Your task to perform on an android device: turn off priority inbox in the gmail app Image 0: 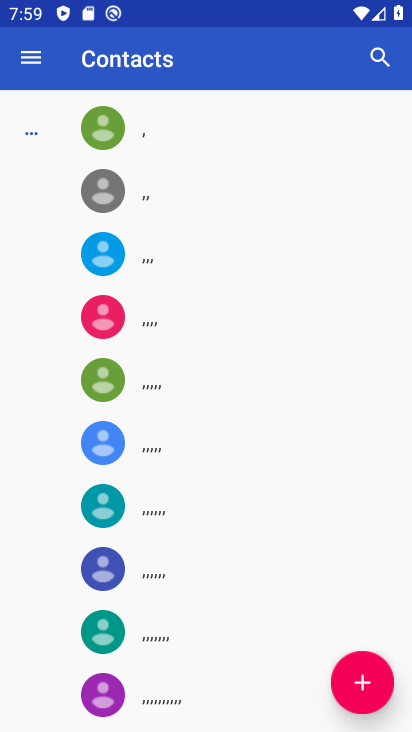
Step 0: press home button
Your task to perform on an android device: turn off priority inbox in the gmail app Image 1: 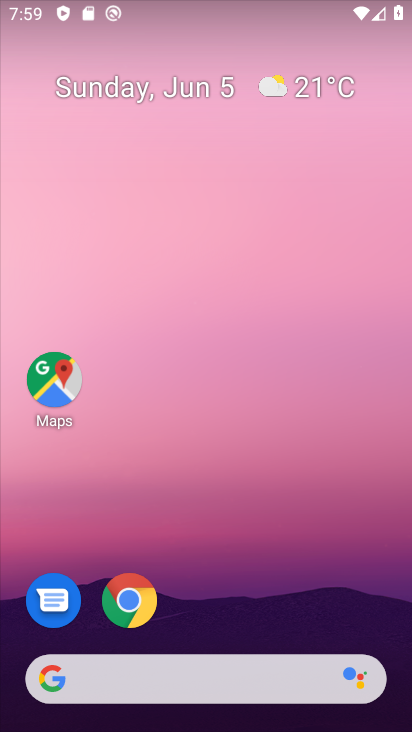
Step 1: drag from (310, 422) to (405, 294)
Your task to perform on an android device: turn off priority inbox in the gmail app Image 2: 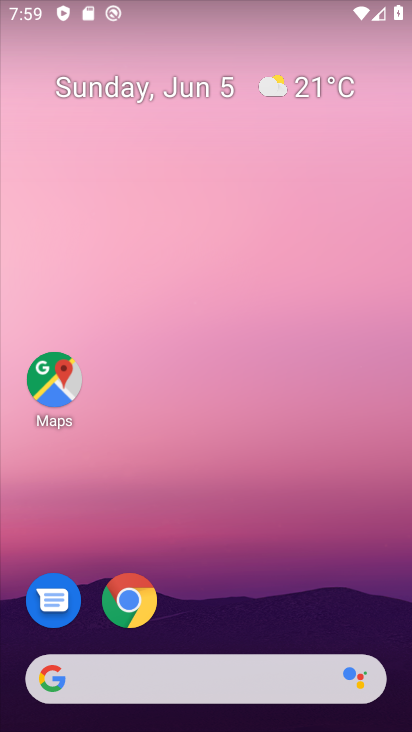
Step 2: drag from (229, 600) to (218, 31)
Your task to perform on an android device: turn off priority inbox in the gmail app Image 3: 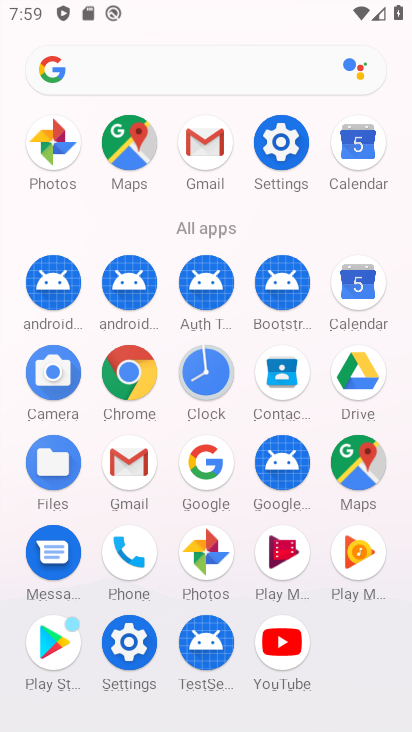
Step 3: click (201, 145)
Your task to perform on an android device: turn off priority inbox in the gmail app Image 4: 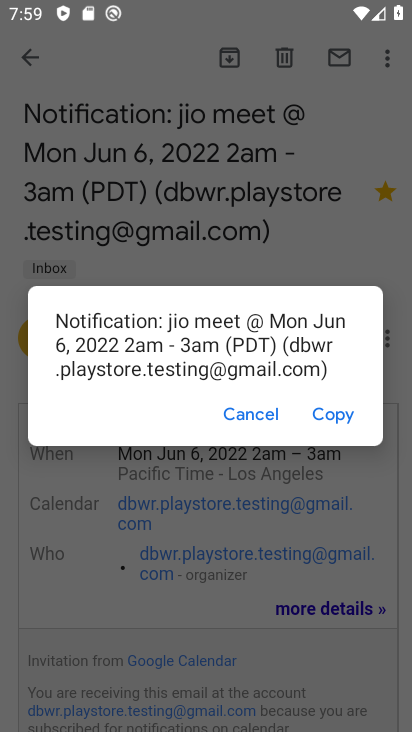
Step 4: press back button
Your task to perform on an android device: turn off priority inbox in the gmail app Image 5: 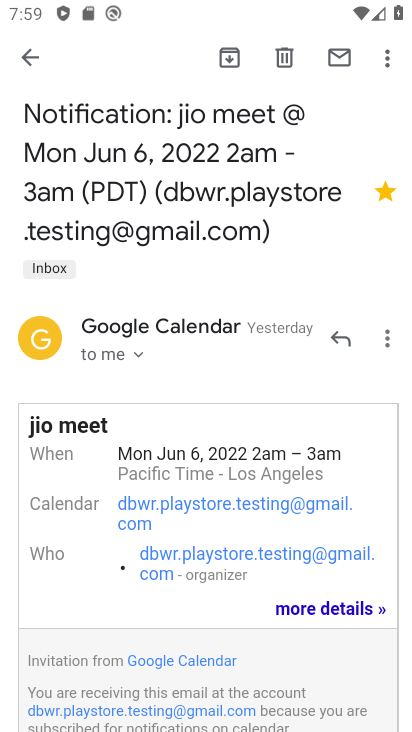
Step 5: press back button
Your task to perform on an android device: turn off priority inbox in the gmail app Image 6: 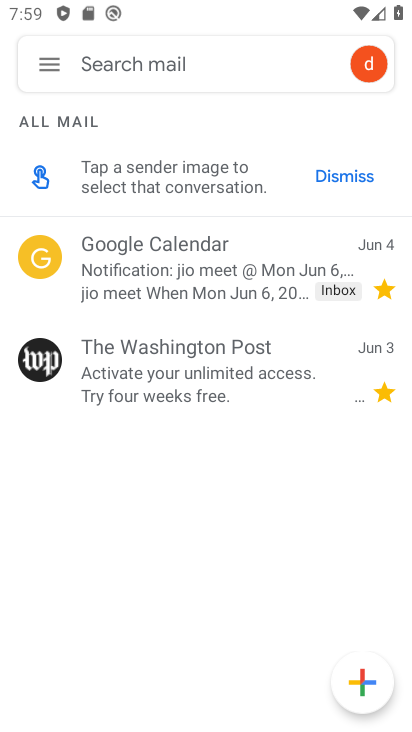
Step 6: click (51, 66)
Your task to perform on an android device: turn off priority inbox in the gmail app Image 7: 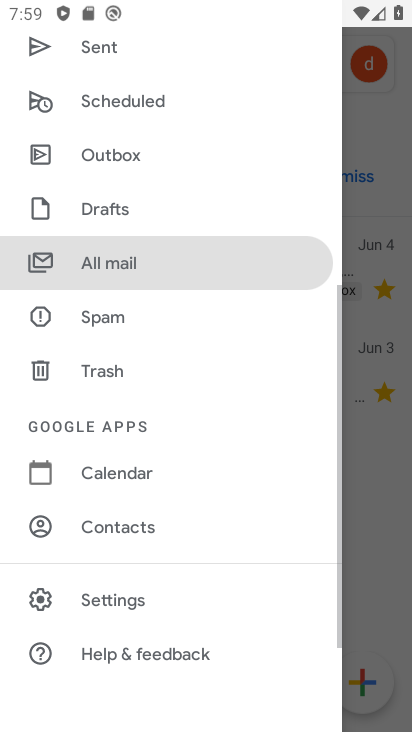
Step 7: click (164, 603)
Your task to perform on an android device: turn off priority inbox in the gmail app Image 8: 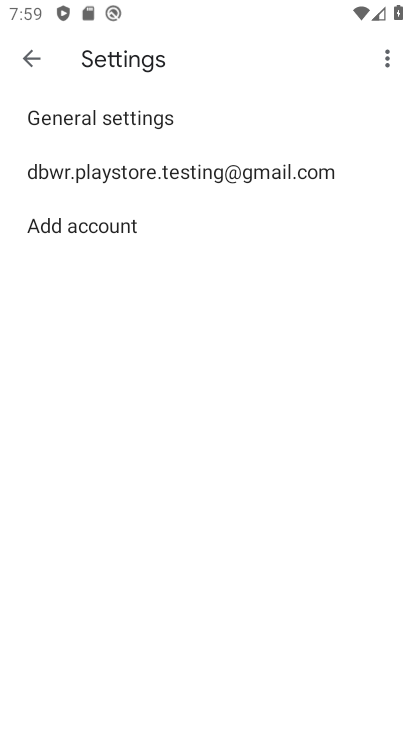
Step 8: click (124, 187)
Your task to perform on an android device: turn off priority inbox in the gmail app Image 9: 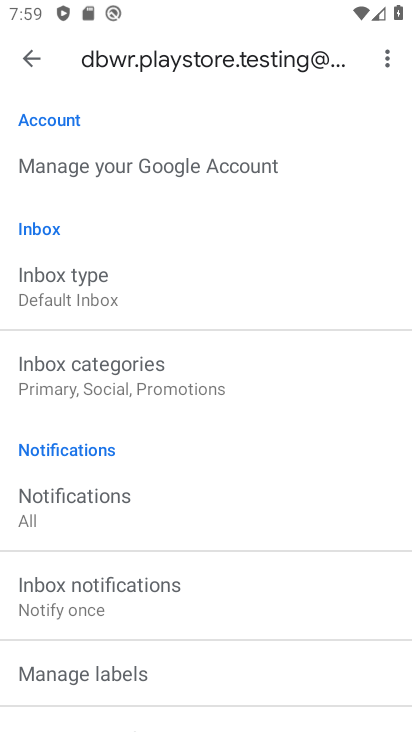
Step 9: drag from (239, 679) to (255, 215)
Your task to perform on an android device: turn off priority inbox in the gmail app Image 10: 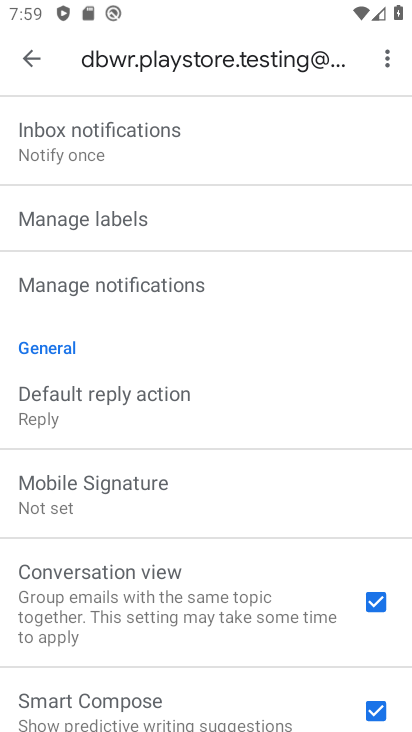
Step 10: drag from (208, 118) to (305, 559)
Your task to perform on an android device: turn off priority inbox in the gmail app Image 11: 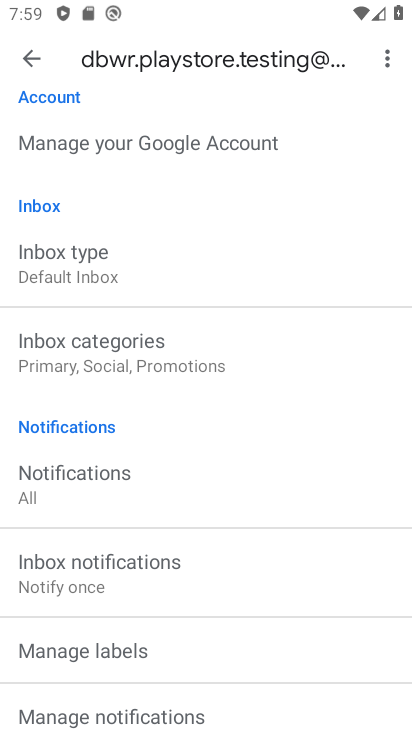
Step 11: click (50, 256)
Your task to perform on an android device: turn off priority inbox in the gmail app Image 12: 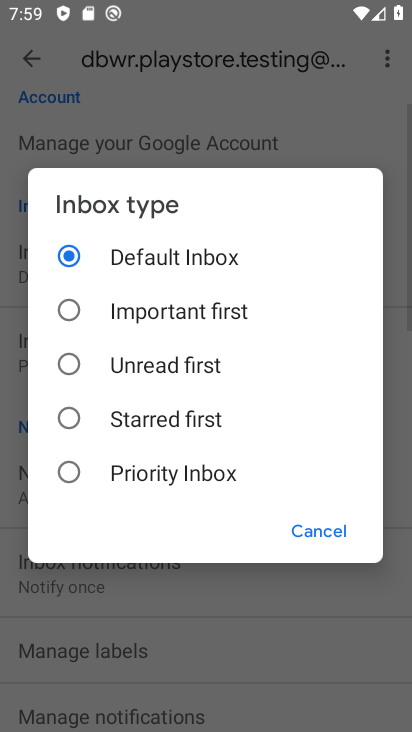
Step 12: click (146, 252)
Your task to perform on an android device: turn off priority inbox in the gmail app Image 13: 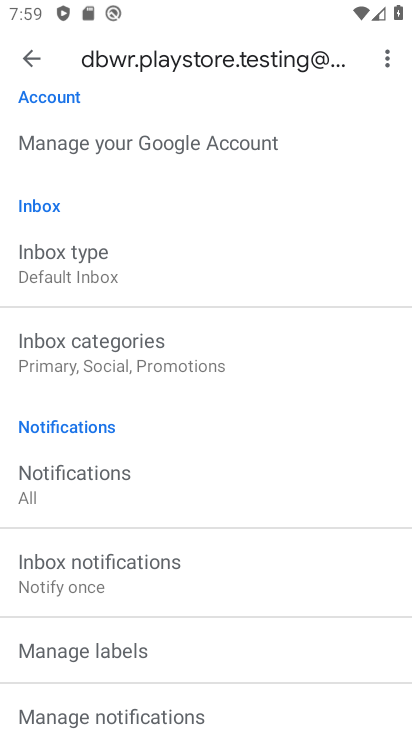
Step 13: task complete